Your task to perform on an android device: Turn off the flashlight Image 0: 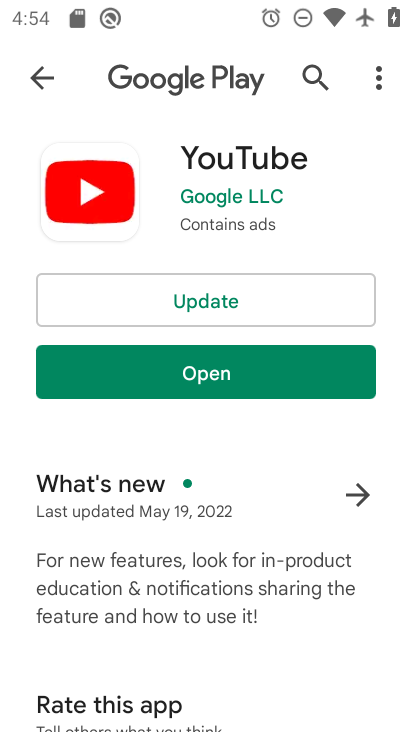
Step 0: press home button
Your task to perform on an android device: Turn off the flashlight Image 1: 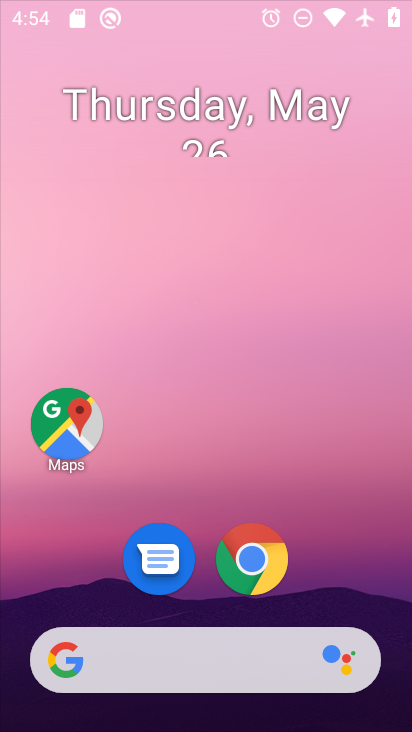
Step 1: task complete